Your task to perform on an android device: Open the Play Movies app and select the watchlist tab. Image 0: 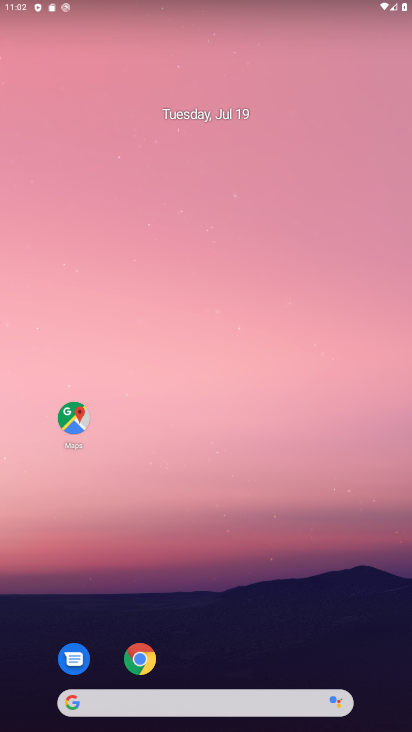
Step 0: drag from (248, 599) to (241, 431)
Your task to perform on an android device: Open the Play Movies app and select the watchlist tab. Image 1: 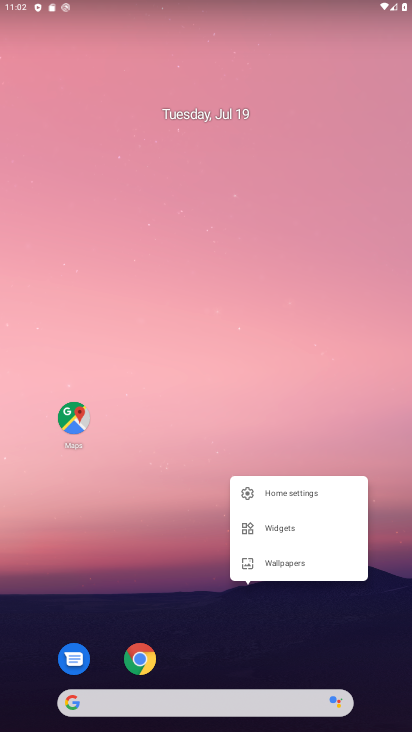
Step 1: click (284, 202)
Your task to perform on an android device: Open the Play Movies app and select the watchlist tab. Image 2: 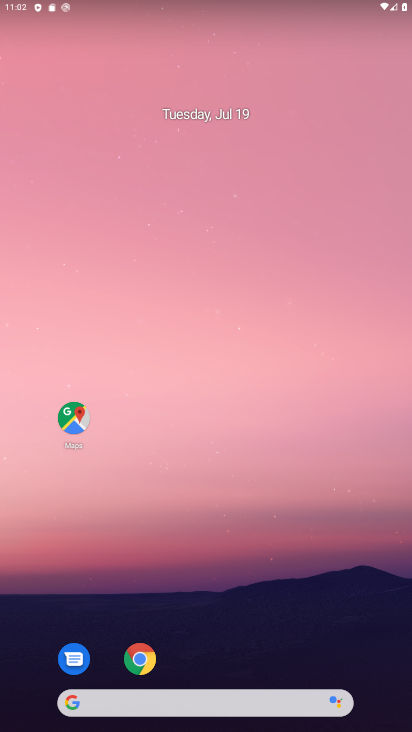
Step 2: drag from (315, 584) to (293, 105)
Your task to perform on an android device: Open the Play Movies app and select the watchlist tab. Image 3: 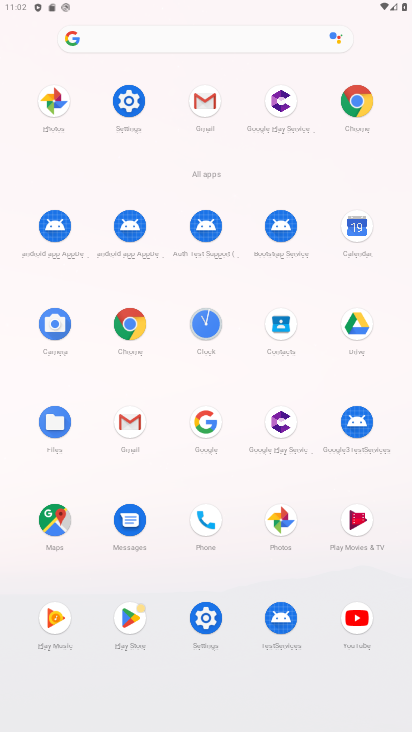
Step 3: click (361, 509)
Your task to perform on an android device: Open the Play Movies app and select the watchlist tab. Image 4: 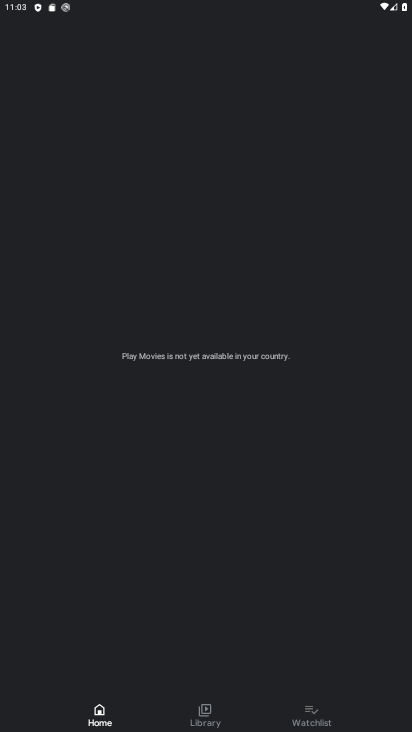
Step 4: click (309, 710)
Your task to perform on an android device: Open the Play Movies app and select the watchlist tab. Image 5: 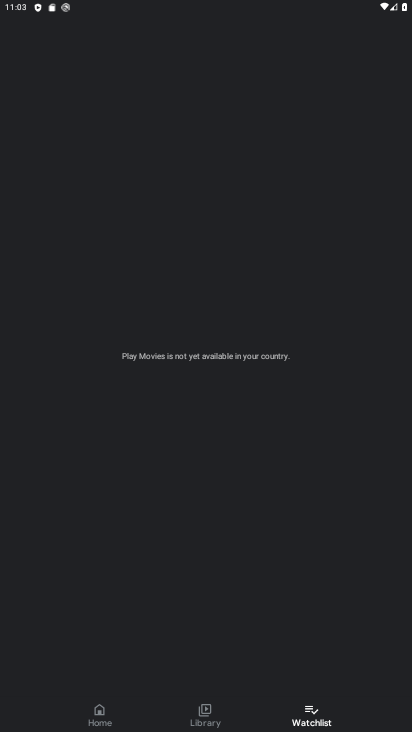
Step 5: task complete